Your task to perform on an android device: What is the recent news? Image 0: 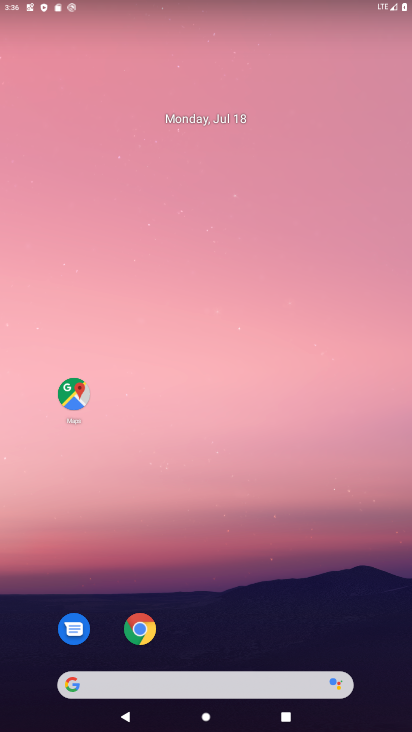
Step 0: drag from (209, 467) to (218, 179)
Your task to perform on an android device: What is the recent news? Image 1: 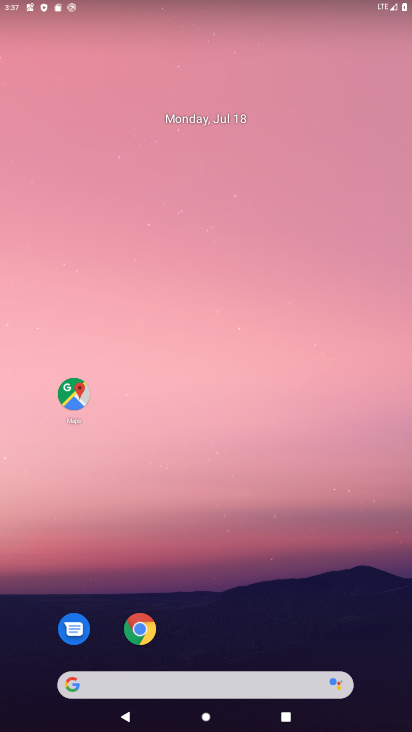
Step 1: drag from (213, 619) to (237, 106)
Your task to perform on an android device: What is the recent news? Image 2: 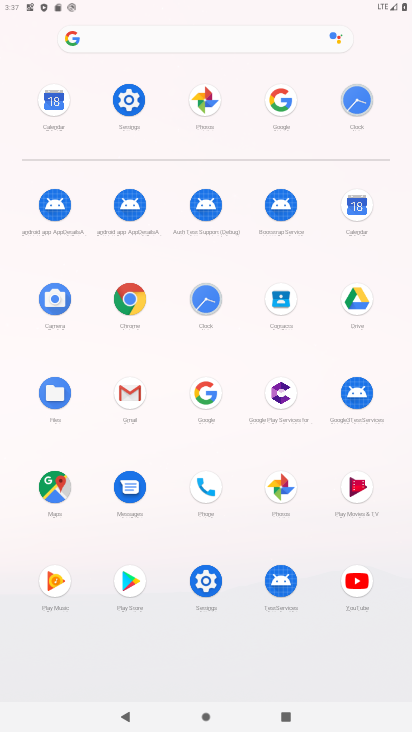
Step 2: click (191, 396)
Your task to perform on an android device: What is the recent news? Image 3: 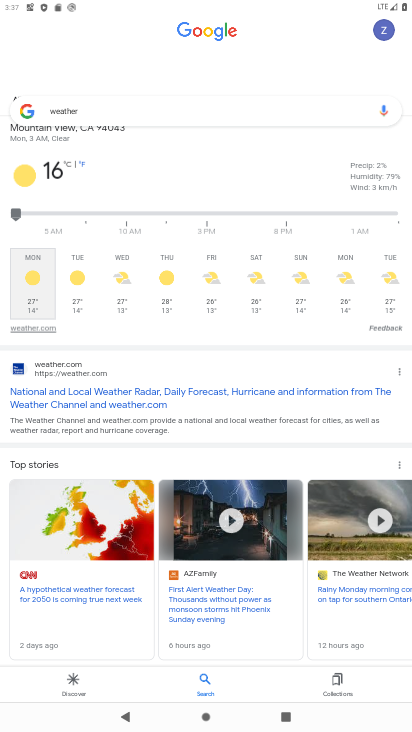
Step 3: click (135, 109)
Your task to perform on an android device: What is the recent news? Image 4: 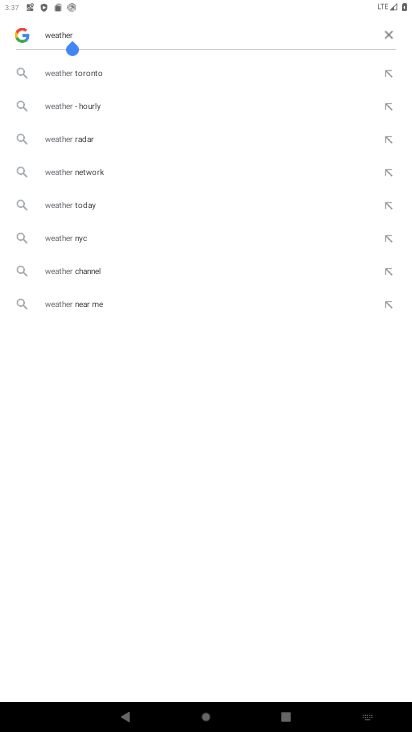
Step 4: click (388, 36)
Your task to perform on an android device: What is the recent news? Image 5: 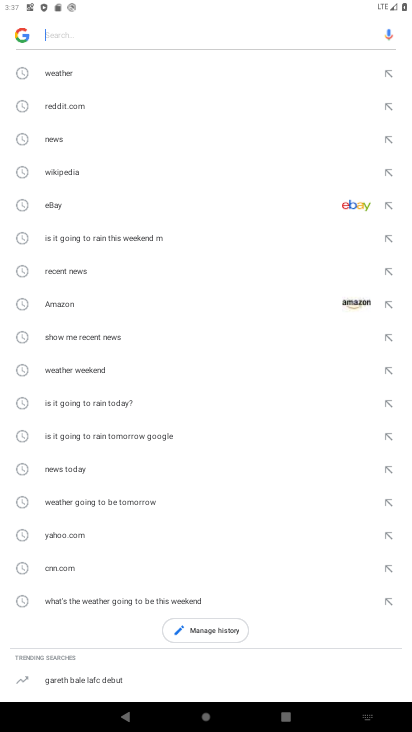
Step 5: click (68, 143)
Your task to perform on an android device: What is the recent news? Image 6: 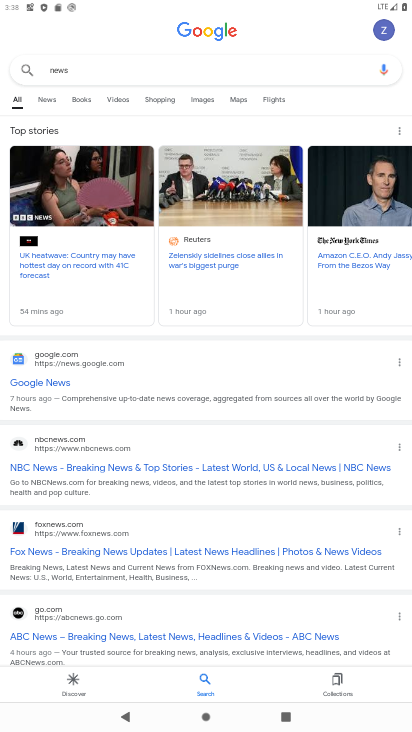
Step 6: click (47, 105)
Your task to perform on an android device: What is the recent news? Image 7: 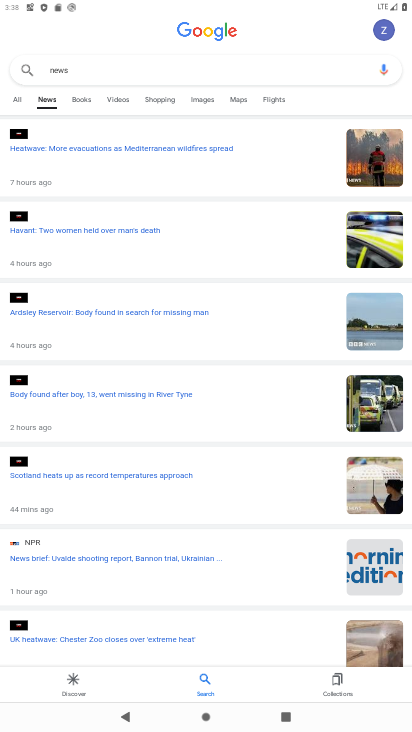
Step 7: task complete